Your task to perform on an android device: turn on showing notifications on the lock screen Image 0: 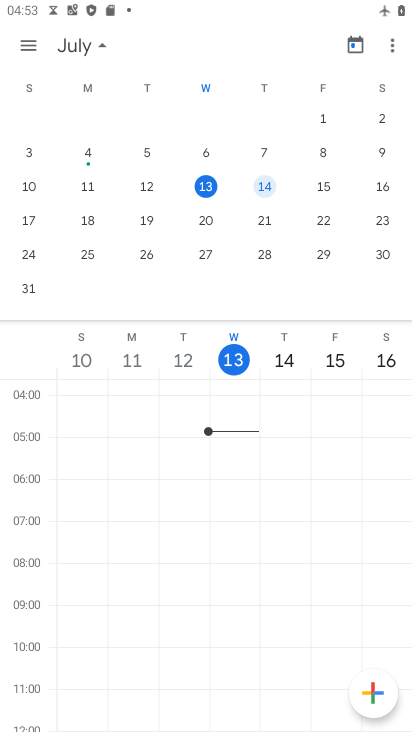
Step 0: press home button
Your task to perform on an android device: turn on showing notifications on the lock screen Image 1: 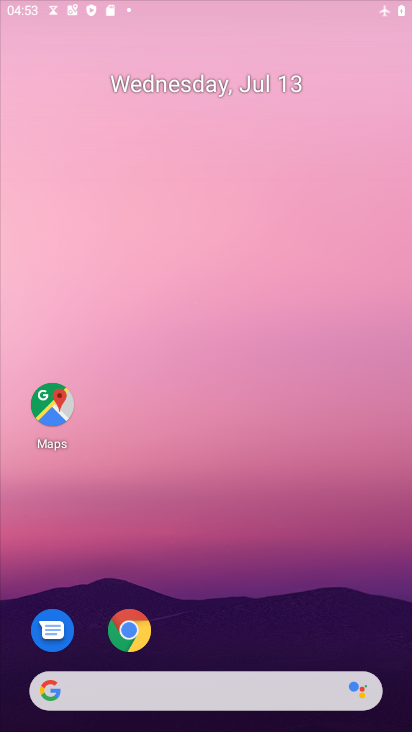
Step 1: drag from (245, 667) to (393, 13)
Your task to perform on an android device: turn on showing notifications on the lock screen Image 2: 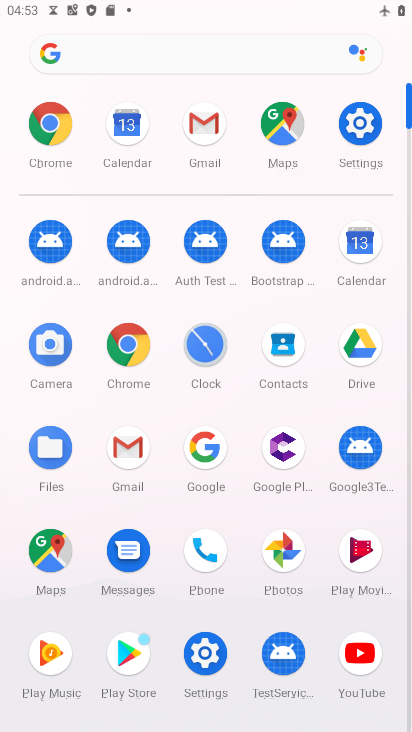
Step 2: click (346, 116)
Your task to perform on an android device: turn on showing notifications on the lock screen Image 3: 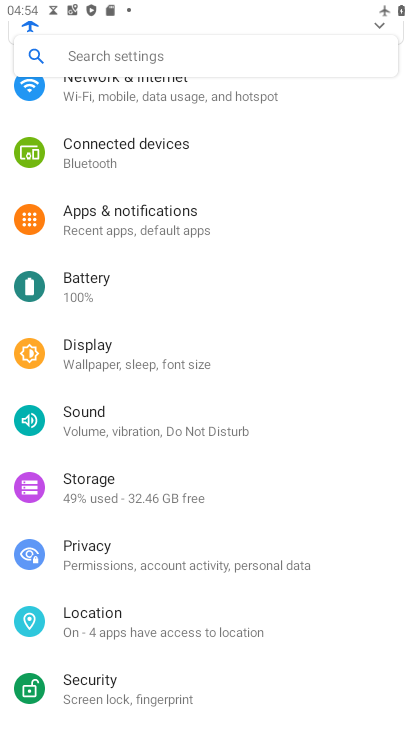
Step 3: click (138, 216)
Your task to perform on an android device: turn on showing notifications on the lock screen Image 4: 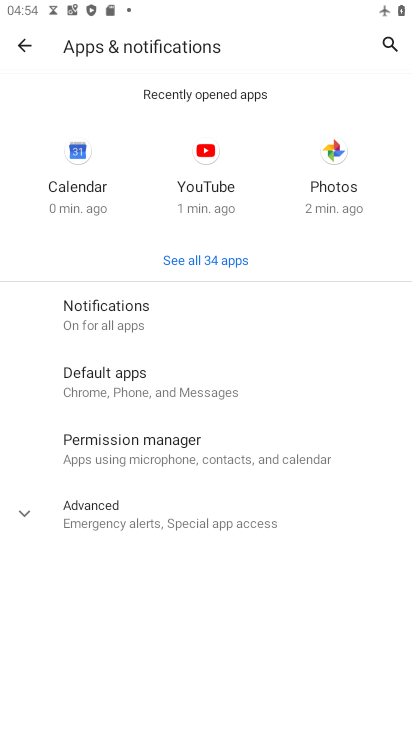
Step 4: click (148, 316)
Your task to perform on an android device: turn on showing notifications on the lock screen Image 5: 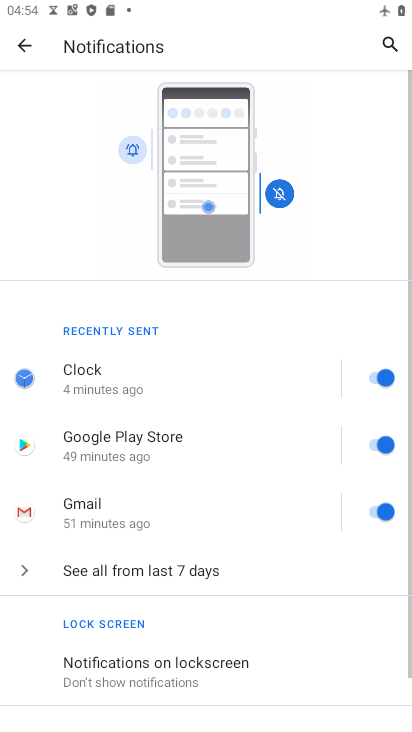
Step 5: click (208, 665)
Your task to perform on an android device: turn on showing notifications on the lock screen Image 6: 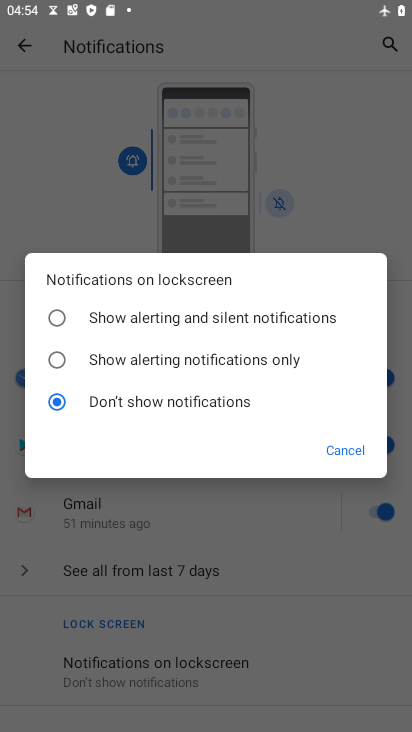
Step 6: click (60, 317)
Your task to perform on an android device: turn on showing notifications on the lock screen Image 7: 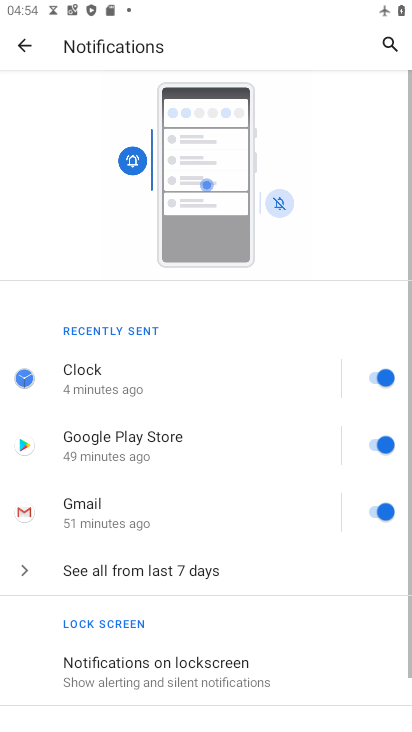
Step 7: task complete